Your task to perform on an android device: turn off translation in the chrome app Image 0: 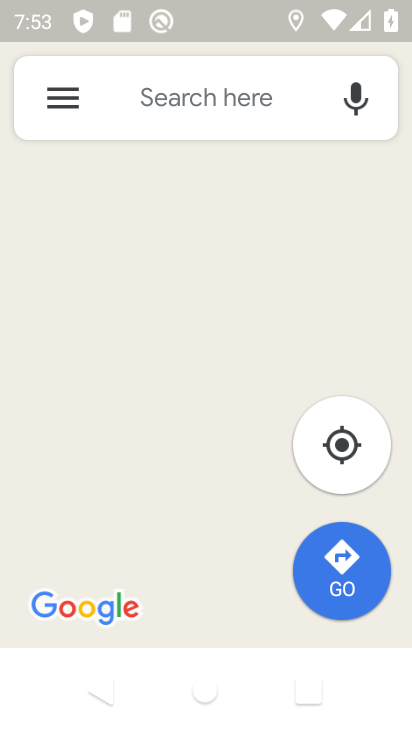
Step 0: press home button
Your task to perform on an android device: turn off translation in the chrome app Image 1: 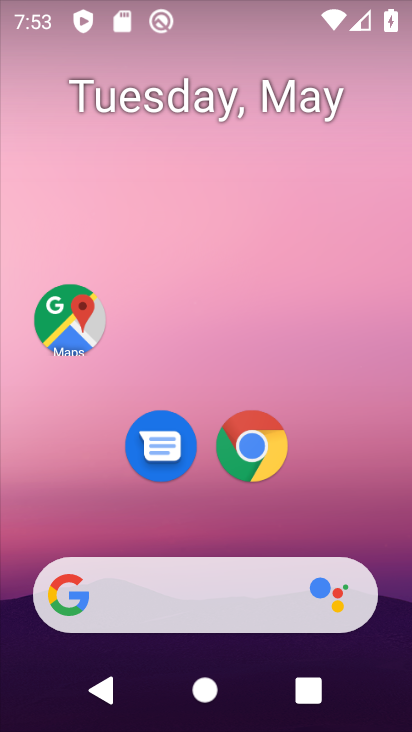
Step 1: click (253, 455)
Your task to perform on an android device: turn off translation in the chrome app Image 2: 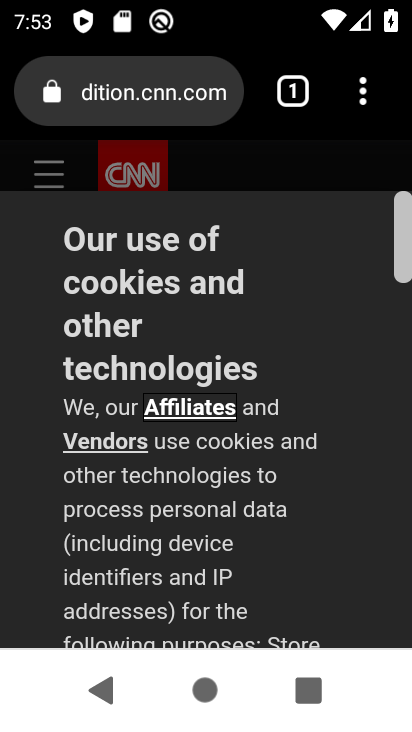
Step 2: click (364, 98)
Your task to perform on an android device: turn off translation in the chrome app Image 3: 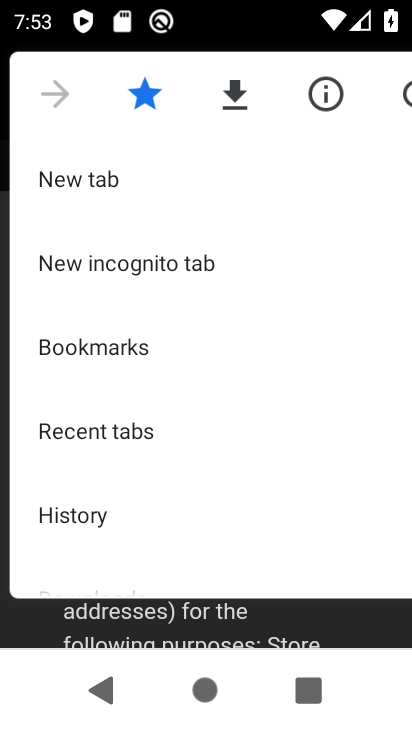
Step 3: drag from (215, 456) to (198, 169)
Your task to perform on an android device: turn off translation in the chrome app Image 4: 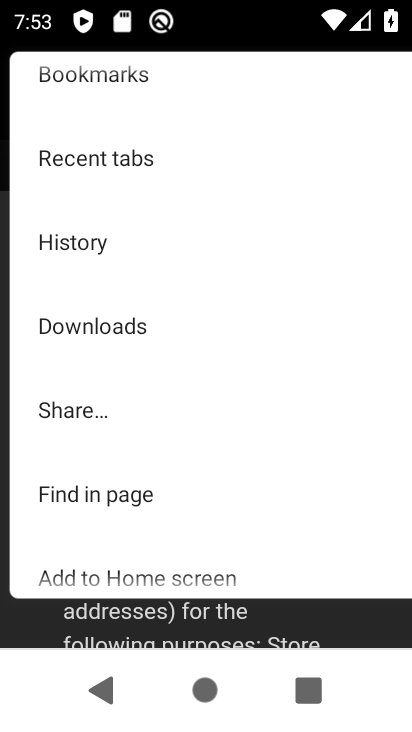
Step 4: drag from (224, 475) to (214, 161)
Your task to perform on an android device: turn off translation in the chrome app Image 5: 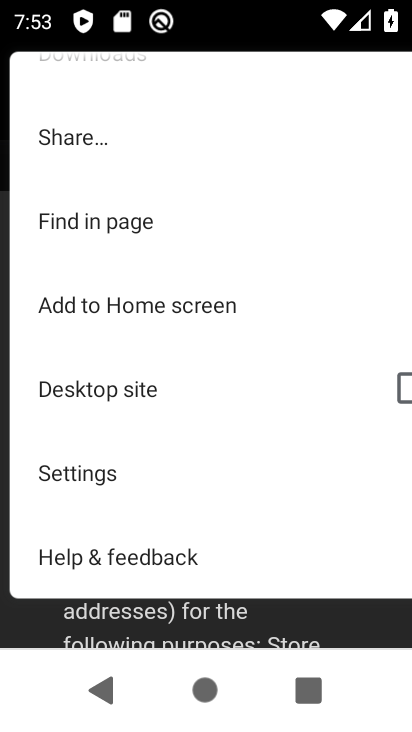
Step 5: click (99, 477)
Your task to perform on an android device: turn off translation in the chrome app Image 6: 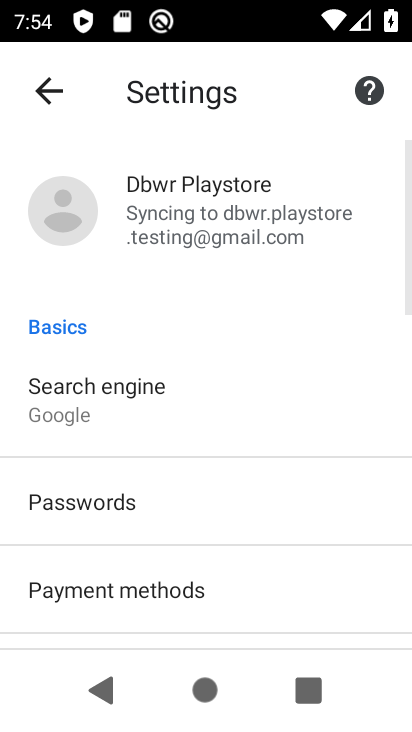
Step 6: drag from (207, 566) to (206, 85)
Your task to perform on an android device: turn off translation in the chrome app Image 7: 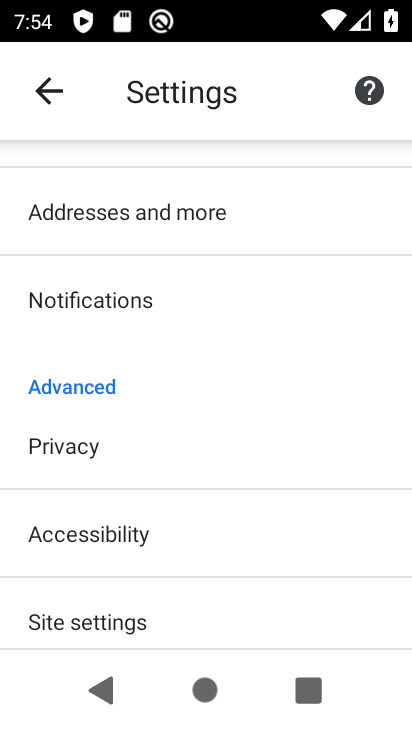
Step 7: drag from (257, 499) to (205, 198)
Your task to perform on an android device: turn off translation in the chrome app Image 8: 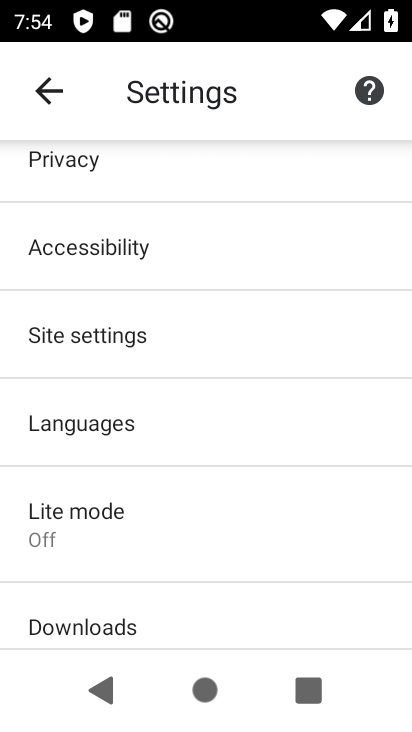
Step 8: click (139, 419)
Your task to perform on an android device: turn off translation in the chrome app Image 9: 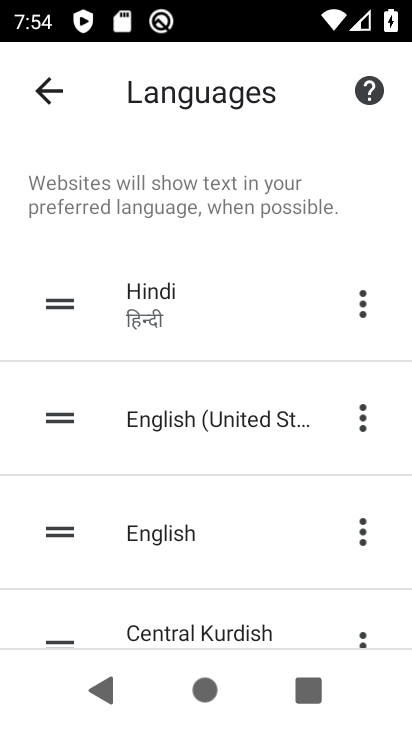
Step 9: drag from (246, 577) to (226, 170)
Your task to perform on an android device: turn off translation in the chrome app Image 10: 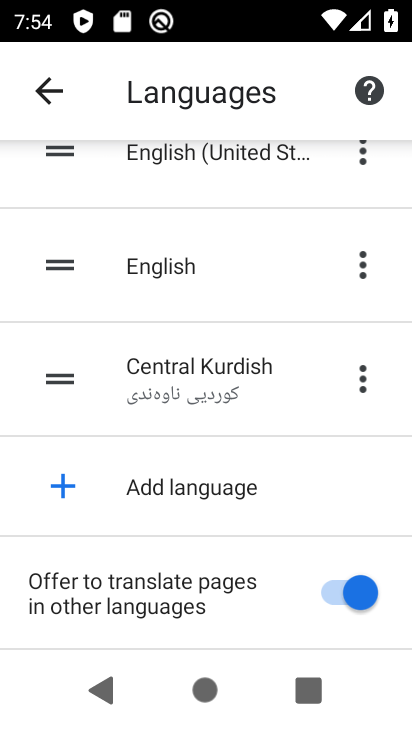
Step 10: drag from (187, 534) to (188, 266)
Your task to perform on an android device: turn off translation in the chrome app Image 11: 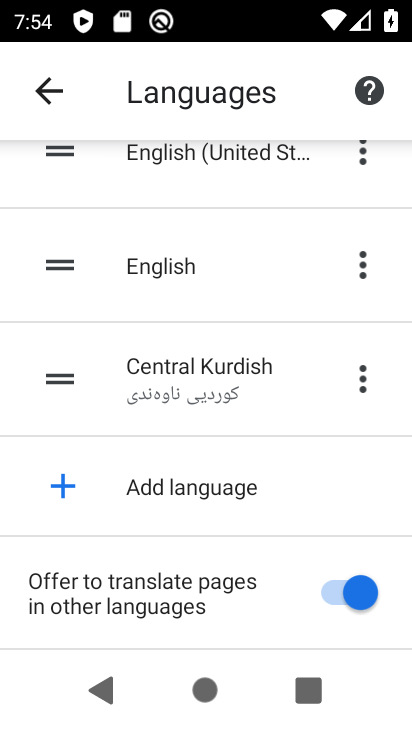
Step 11: click (344, 599)
Your task to perform on an android device: turn off translation in the chrome app Image 12: 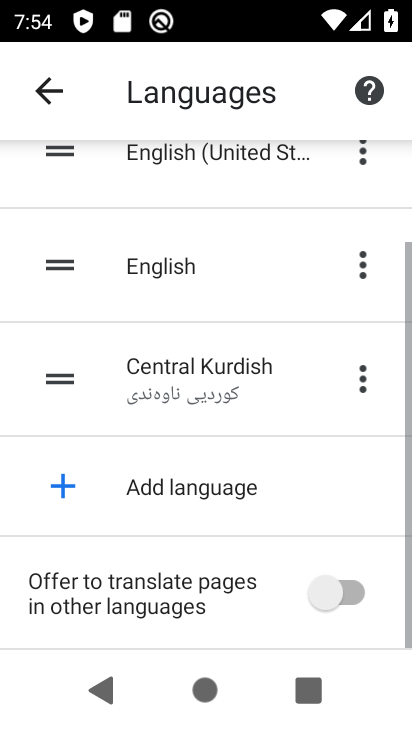
Step 12: task complete